Your task to perform on an android device: check battery use Image 0: 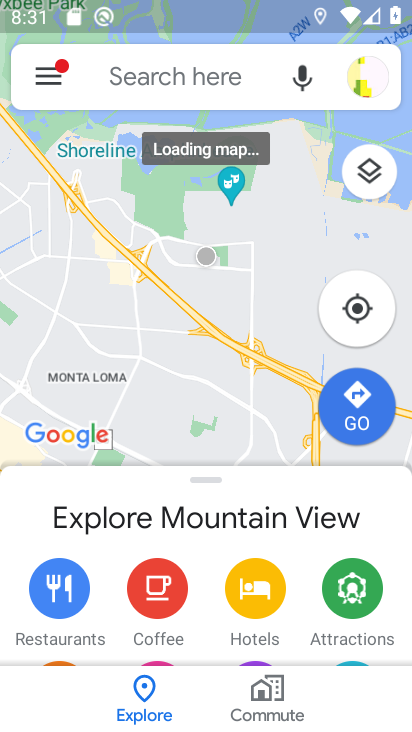
Step 0: press home button
Your task to perform on an android device: check battery use Image 1: 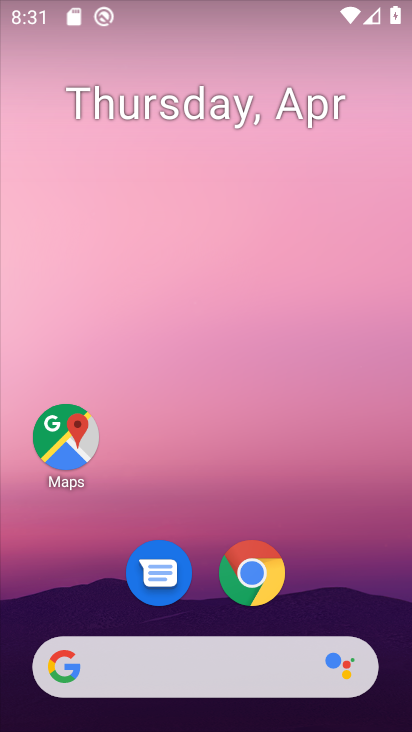
Step 1: drag from (206, 481) to (264, 70)
Your task to perform on an android device: check battery use Image 2: 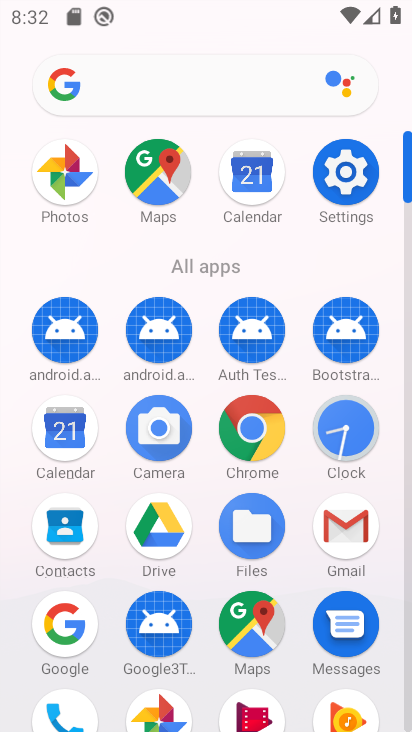
Step 2: click (346, 169)
Your task to perform on an android device: check battery use Image 3: 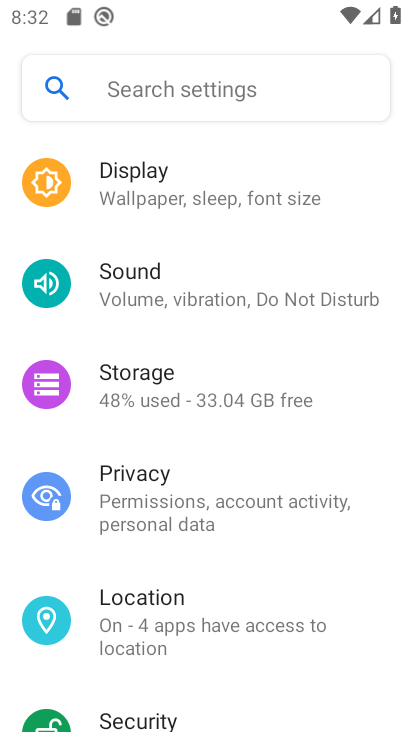
Step 3: drag from (235, 245) to (219, 347)
Your task to perform on an android device: check battery use Image 4: 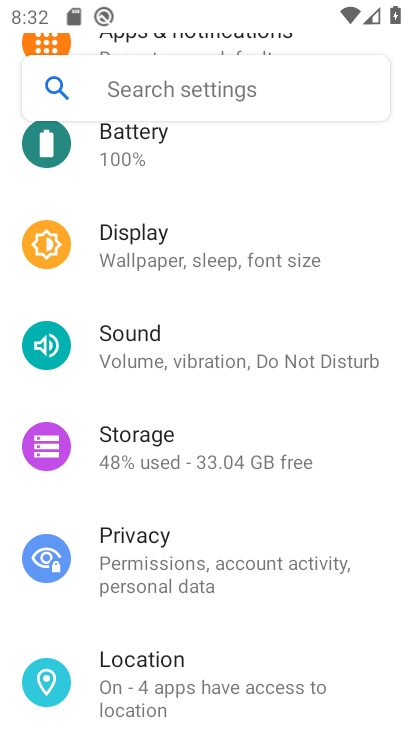
Step 4: drag from (230, 207) to (231, 326)
Your task to perform on an android device: check battery use Image 5: 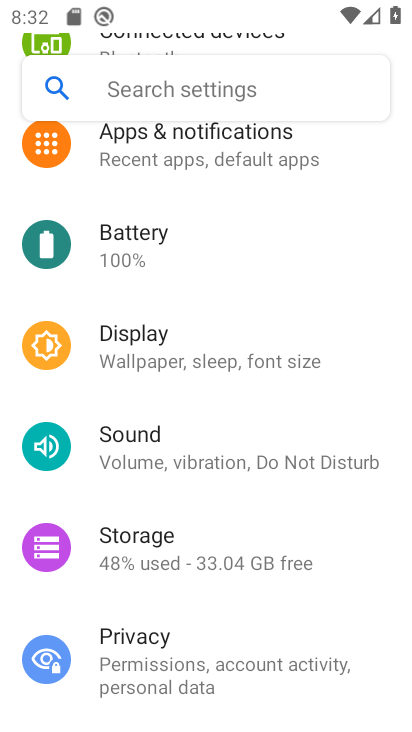
Step 5: click (138, 227)
Your task to perform on an android device: check battery use Image 6: 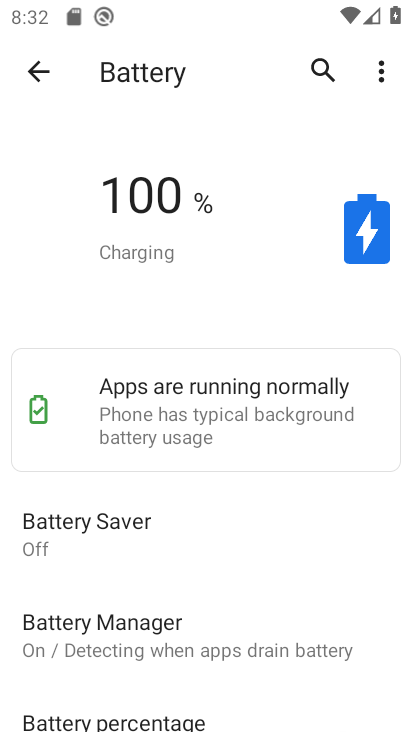
Step 6: click (382, 73)
Your task to perform on an android device: check battery use Image 7: 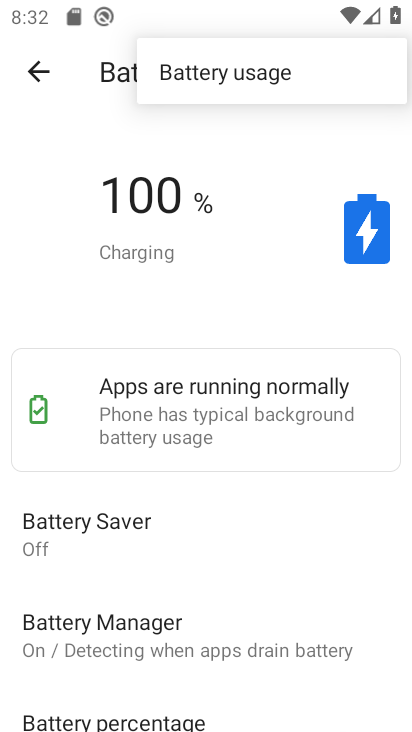
Step 7: click (247, 78)
Your task to perform on an android device: check battery use Image 8: 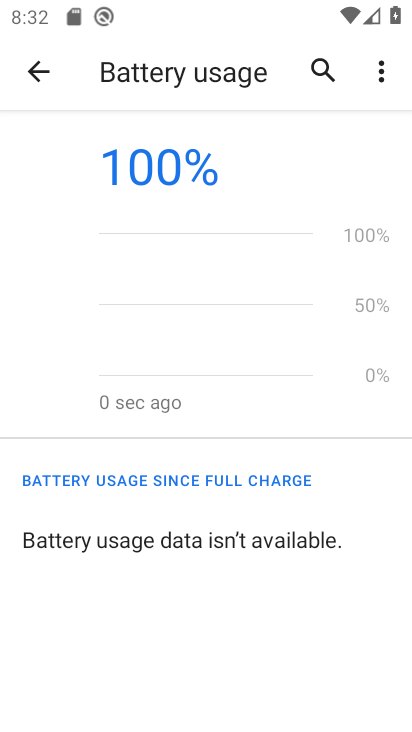
Step 8: task complete